Your task to perform on an android device: turn smart compose on in the gmail app Image 0: 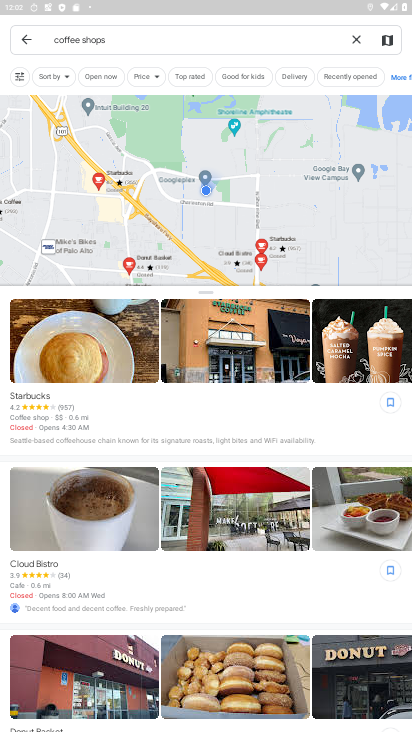
Step 0: press home button
Your task to perform on an android device: turn smart compose on in the gmail app Image 1: 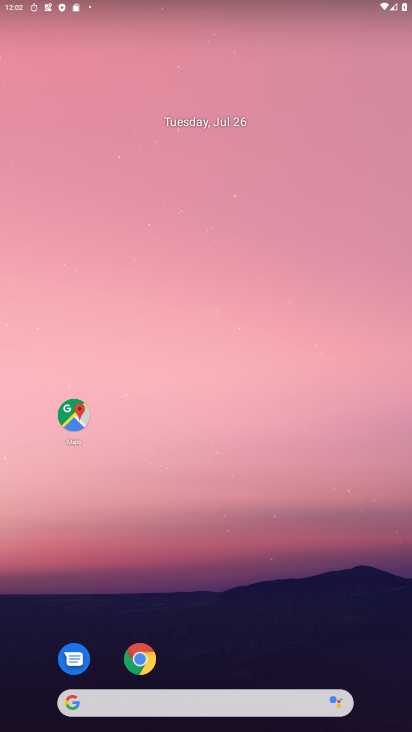
Step 1: click (196, 287)
Your task to perform on an android device: turn smart compose on in the gmail app Image 2: 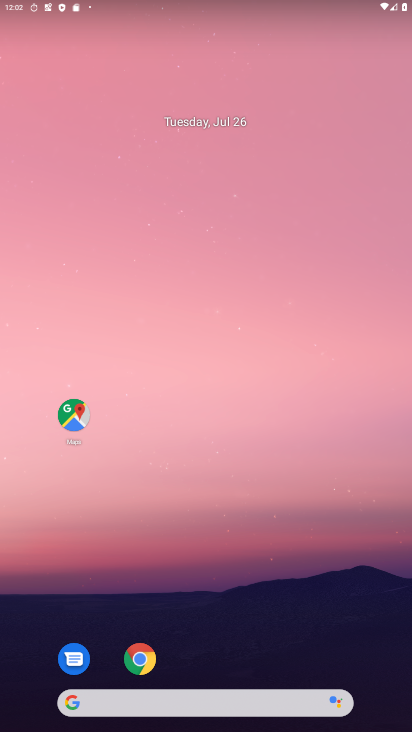
Step 2: drag from (196, 643) to (233, 45)
Your task to perform on an android device: turn smart compose on in the gmail app Image 3: 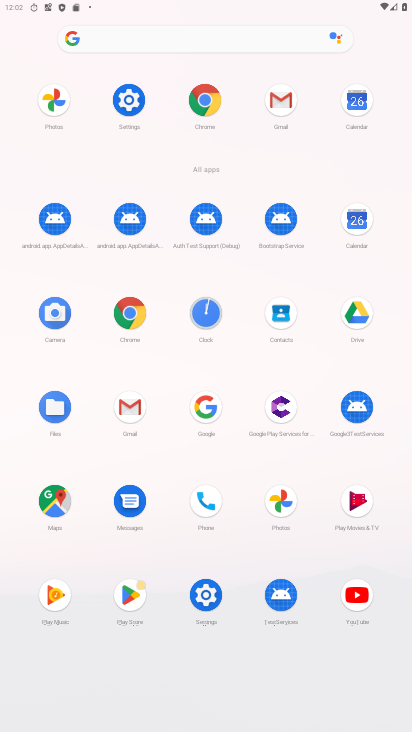
Step 3: click (278, 109)
Your task to perform on an android device: turn smart compose on in the gmail app Image 4: 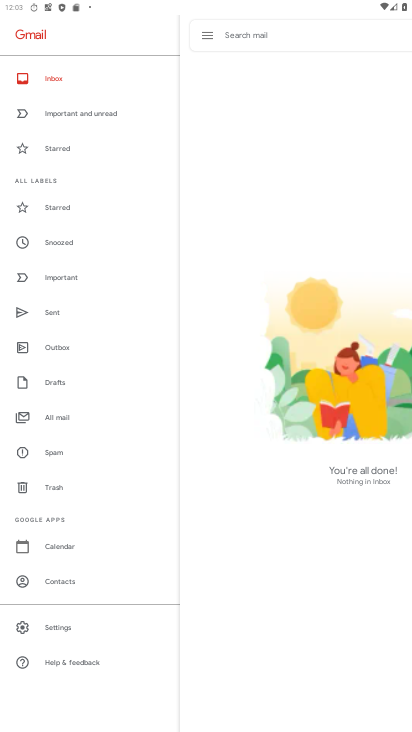
Step 4: click (56, 624)
Your task to perform on an android device: turn smart compose on in the gmail app Image 5: 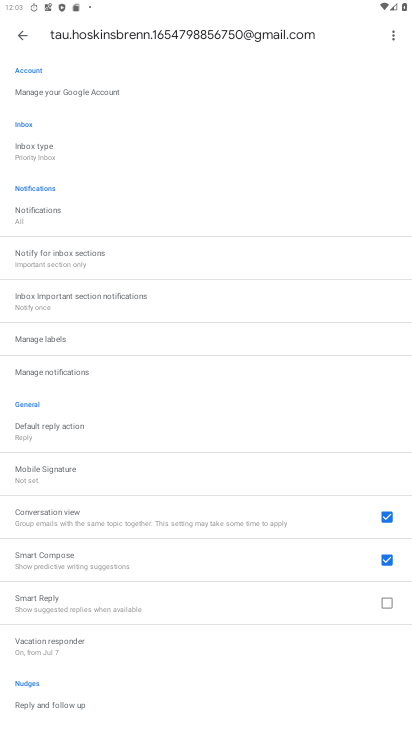
Step 5: click (389, 561)
Your task to perform on an android device: turn smart compose on in the gmail app Image 6: 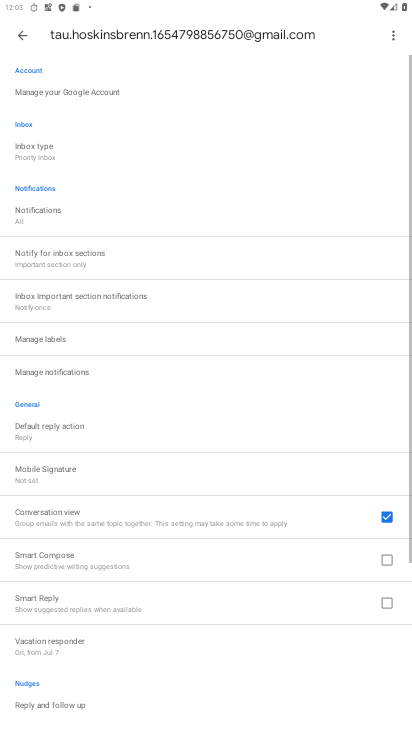
Step 6: click (389, 561)
Your task to perform on an android device: turn smart compose on in the gmail app Image 7: 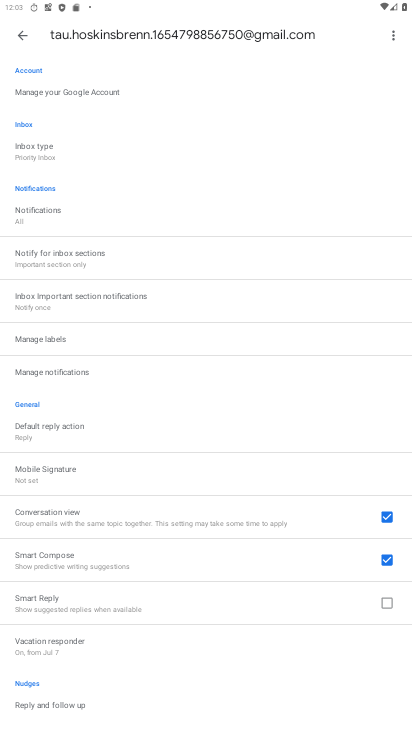
Step 7: task complete